Your task to perform on an android device: Open Reddit.com Image 0: 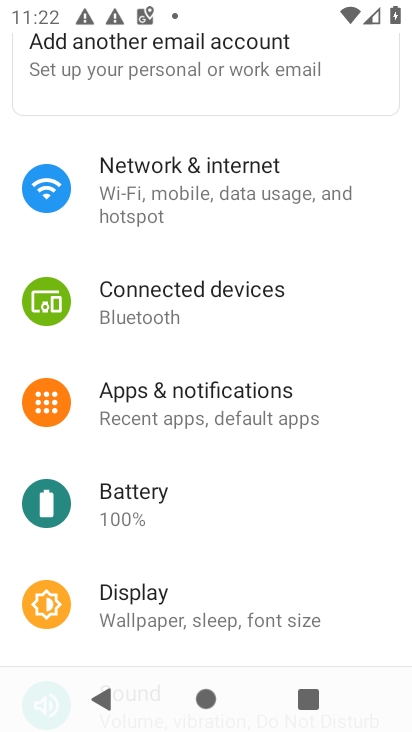
Step 0: press home button
Your task to perform on an android device: Open Reddit.com Image 1: 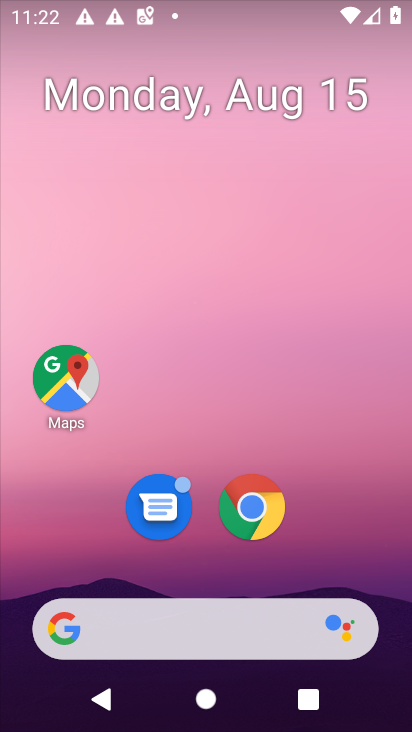
Step 1: click (252, 505)
Your task to perform on an android device: Open Reddit.com Image 2: 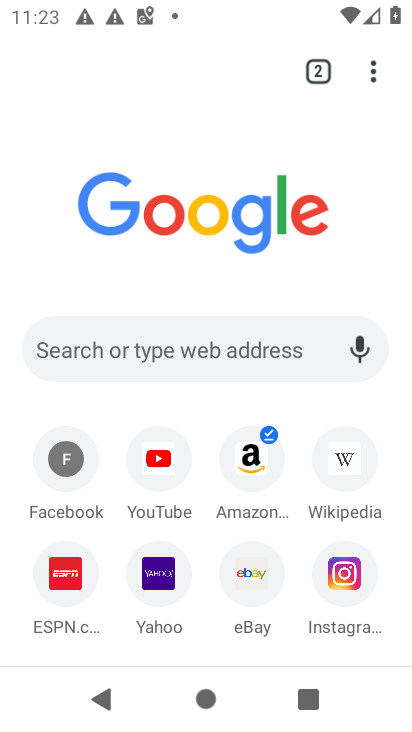
Step 2: click (174, 343)
Your task to perform on an android device: Open Reddit.com Image 3: 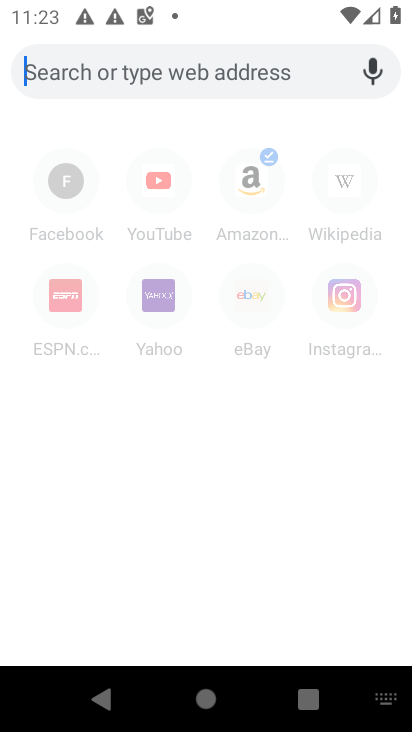
Step 3: type "reddit.com"
Your task to perform on an android device: Open Reddit.com Image 4: 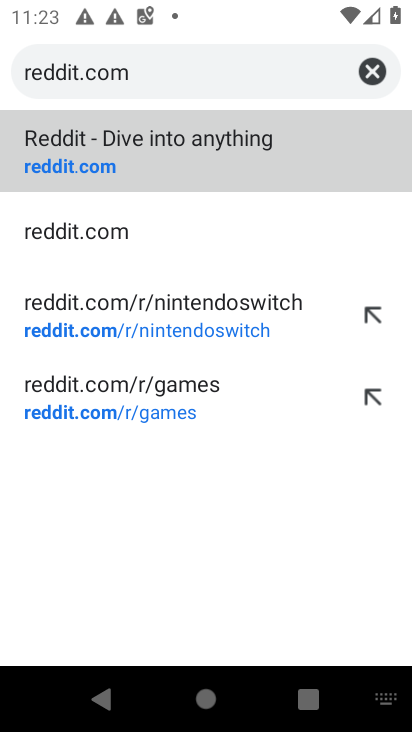
Step 4: click (86, 224)
Your task to perform on an android device: Open Reddit.com Image 5: 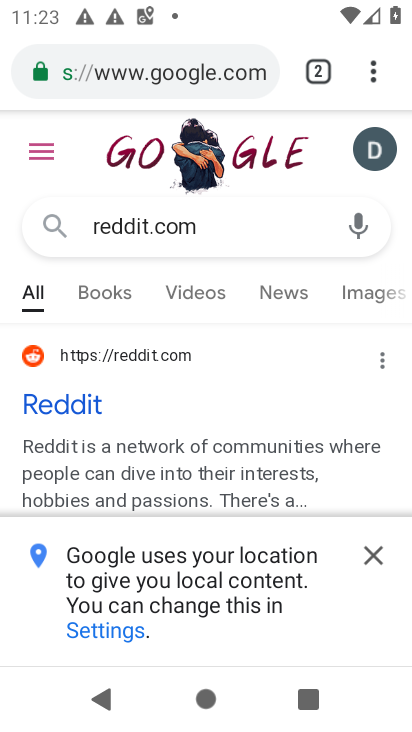
Step 5: click (79, 394)
Your task to perform on an android device: Open Reddit.com Image 6: 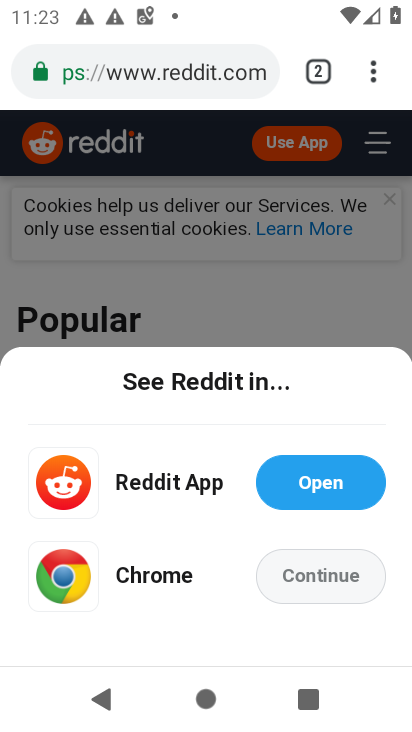
Step 6: click (338, 581)
Your task to perform on an android device: Open Reddit.com Image 7: 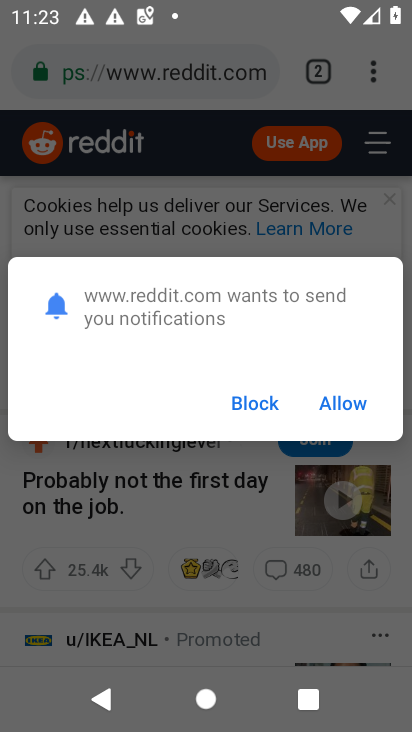
Step 7: click (346, 397)
Your task to perform on an android device: Open Reddit.com Image 8: 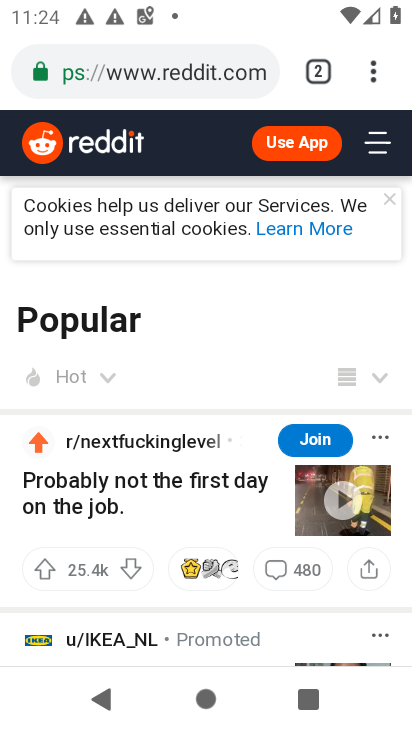
Step 8: task complete